Your task to perform on an android device: Go to Reddit.com Image 0: 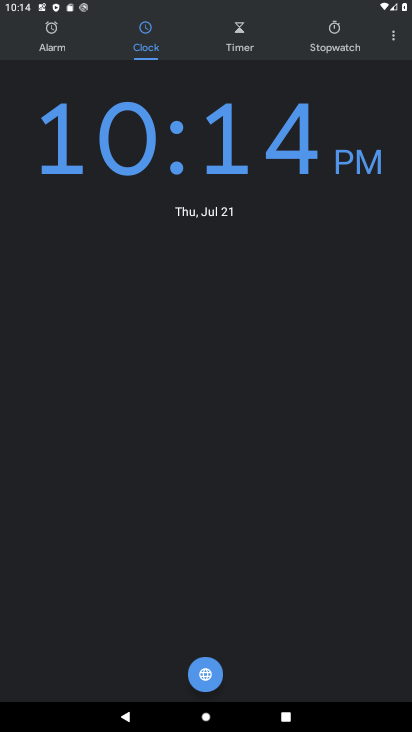
Step 0: press home button
Your task to perform on an android device: Go to Reddit.com Image 1: 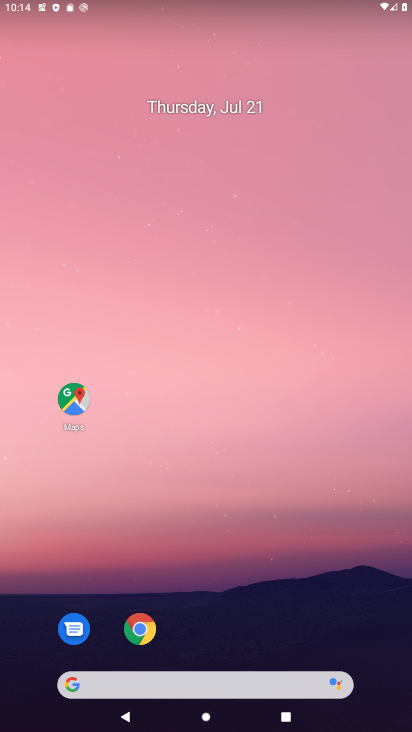
Step 1: click (143, 624)
Your task to perform on an android device: Go to Reddit.com Image 2: 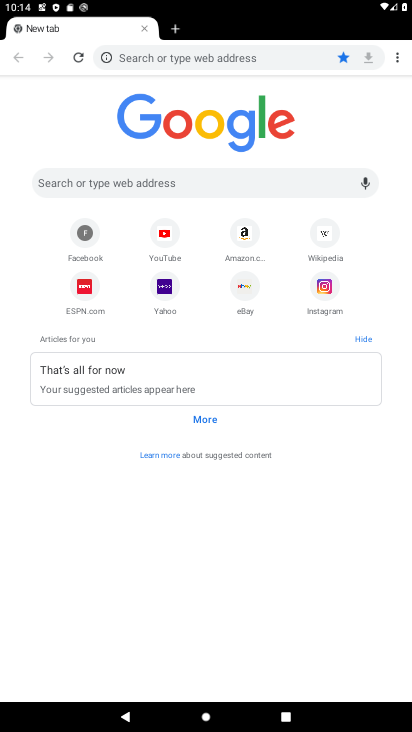
Step 2: click (167, 57)
Your task to perform on an android device: Go to Reddit.com Image 3: 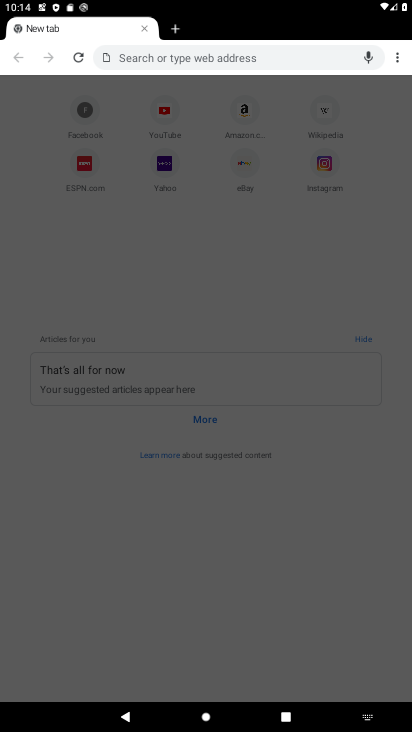
Step 3: type "Reddit.com"
Your task to perform on an android device: Go to Reddit.com Image 4: 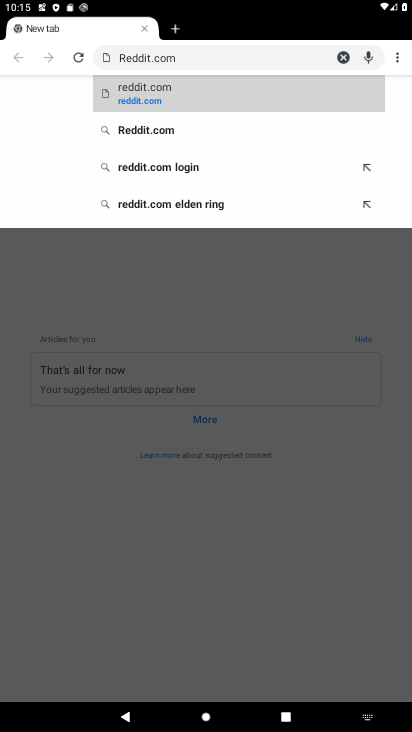
Step 4: click (158, 102)
Your task to perform on an android device: Go to Reddit.com Image 5: 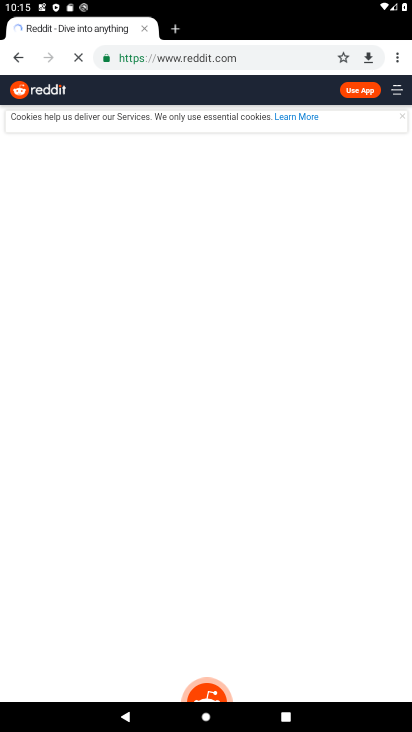
Step 5: task complete